Your task to perform on an android device: Add razer blackwidow to the cart on bestbuy.com, then select checkout. Image 0: 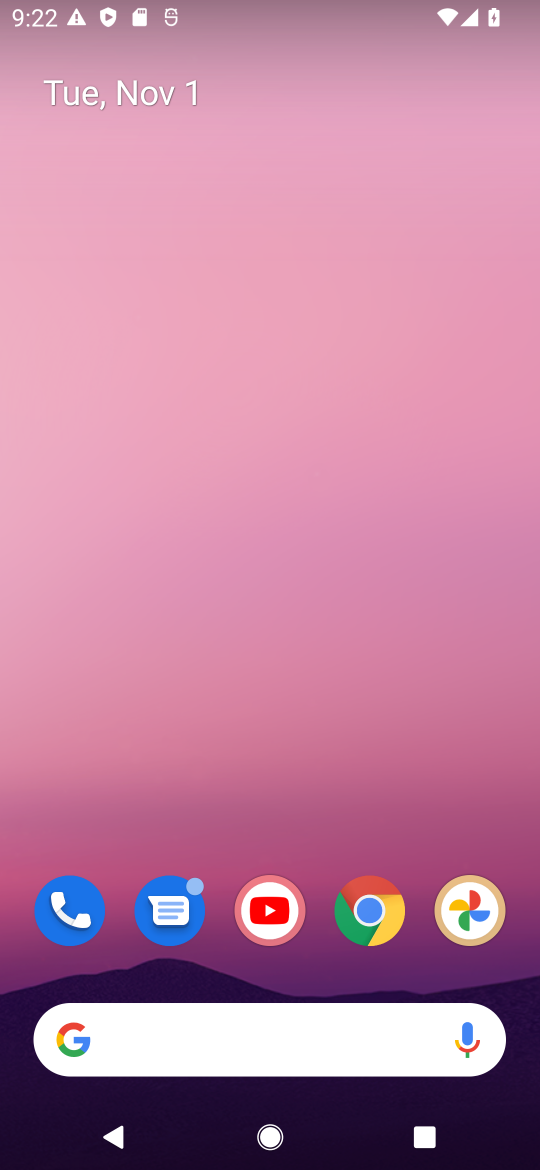
Step 0: click (366, 912)
Your task to perform on an android device: Add razer blackwidow to the cart on bestbuy.com, then select checkout. Image 1: 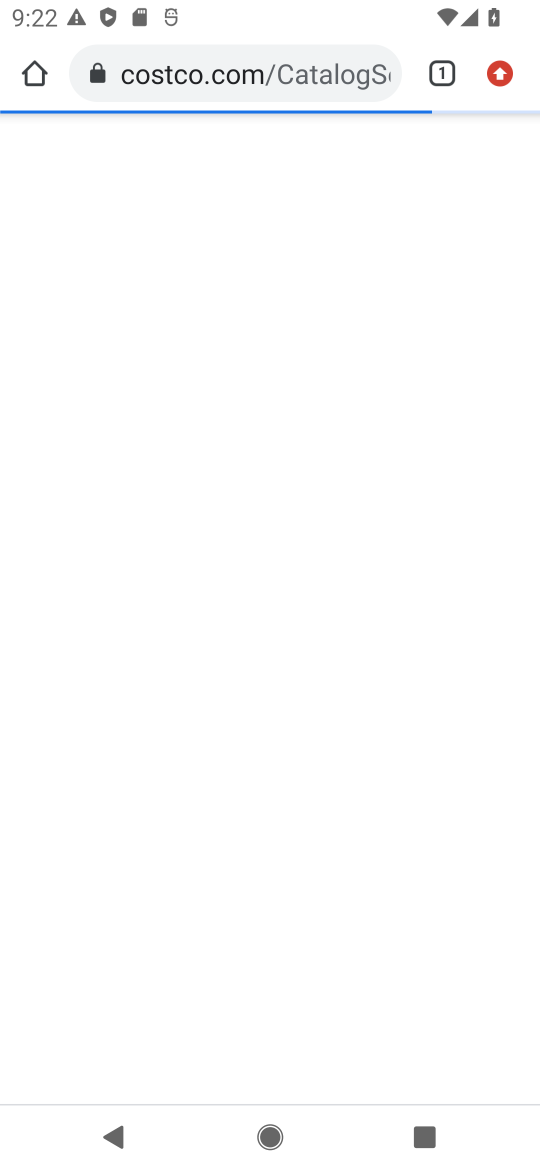
Step 1: click (229, 85)
Your task to perform on an android device: Add razer blackwidow to the cart on bestbuy.com, then select checkout. Image 2: 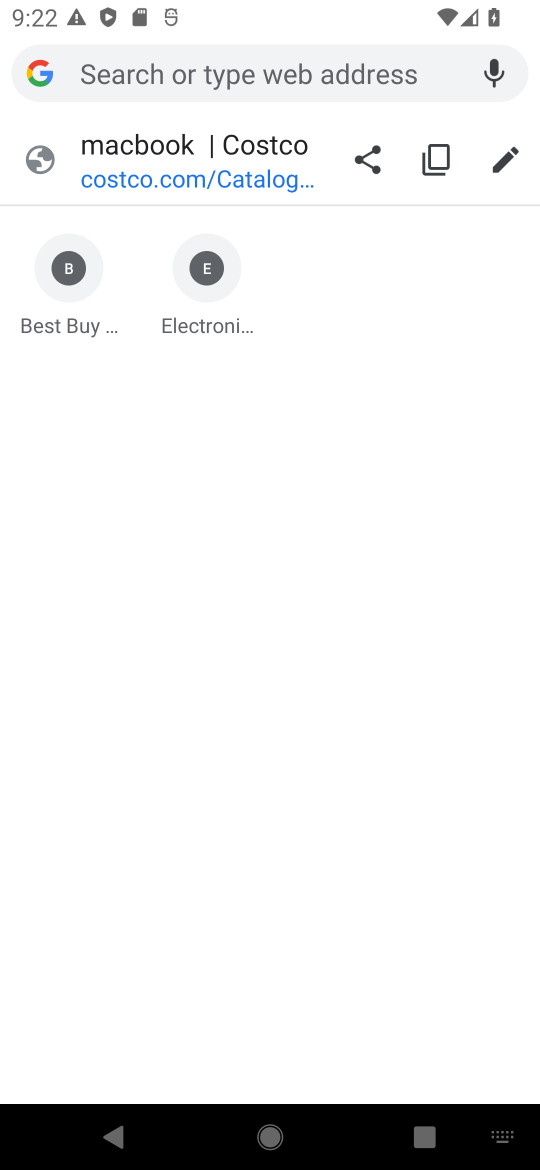
Step 2: type "bestbuy.com"
Your task to perform on an android device: Add razer blackwidow to the cart on bestbuy.com, then select checkout. Image 3: 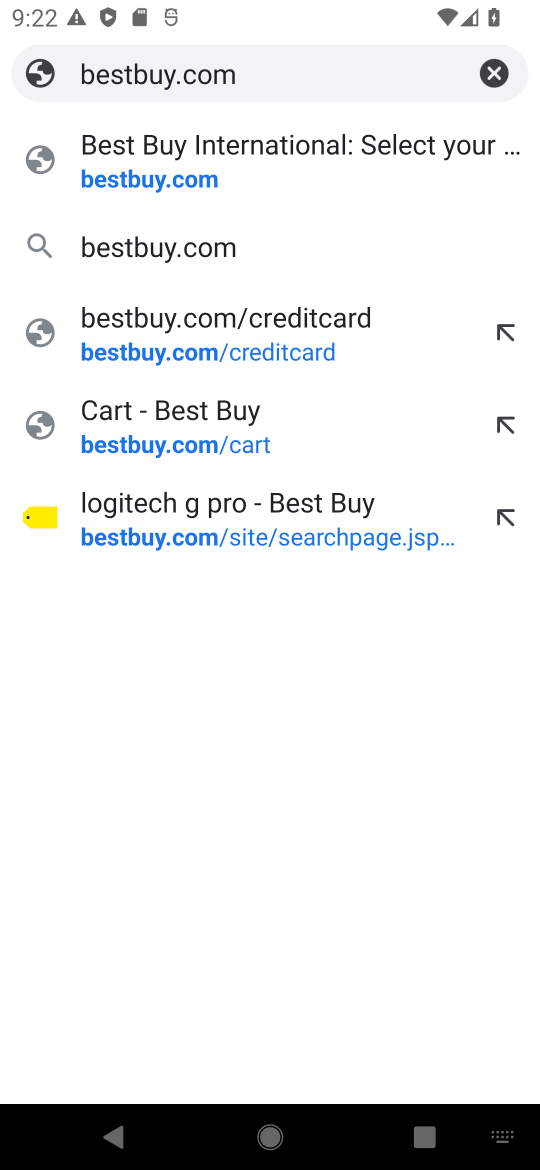
Step 3: click (133, 252)
Your task to perform on an android device: Add razer blackwidow to the cart on bestbuy.com, then select checkout. Image 4: 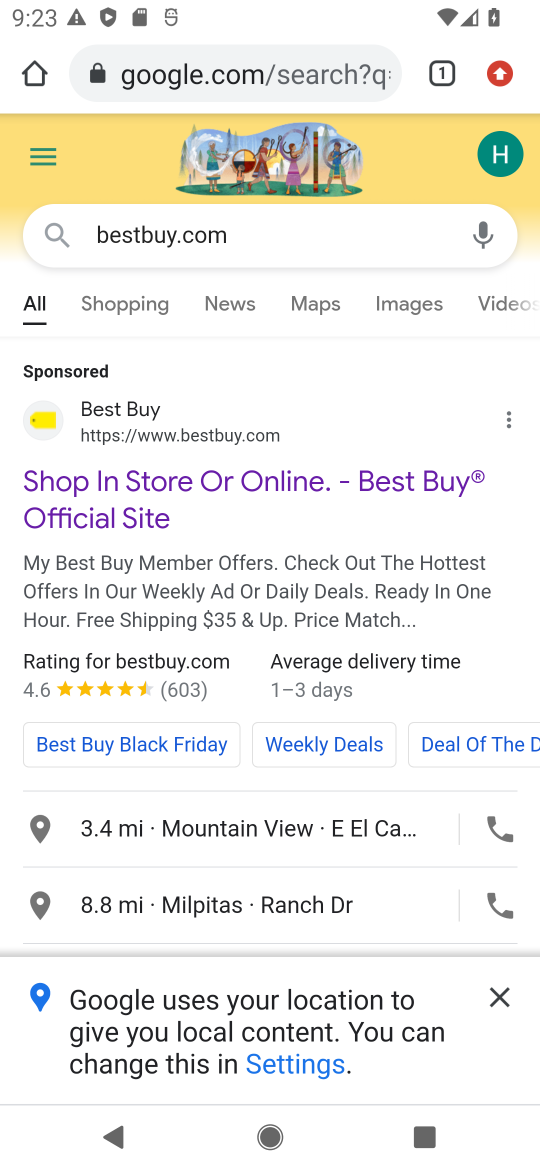
Step 4: click (110, 493)
Your task to perform on an android device: Add razer blackwidow to the cart on bestbuy.com, then select checkout. Image 5: 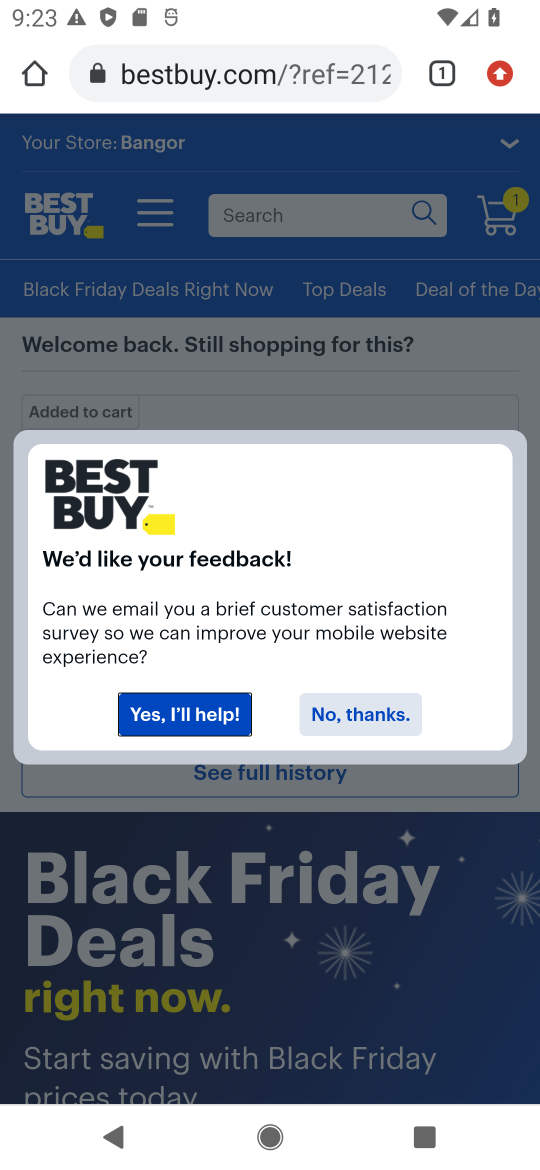
Step 5: click (362, 719)
Your task to perform on an android device: Add razer blackwidow to the cart on bestbuy.com, then select checkout. Image 6: 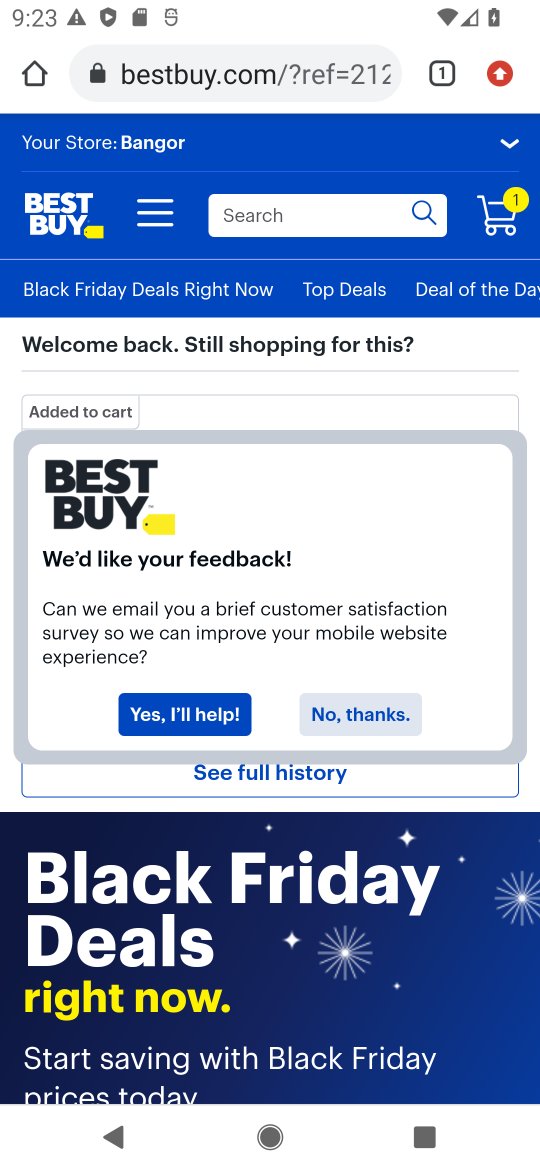
Step 6: click (286, 211)
Your task to perform on an android device: Add razer blackwidow to the cart on bestbuy.com, then select checkout. Image 7: 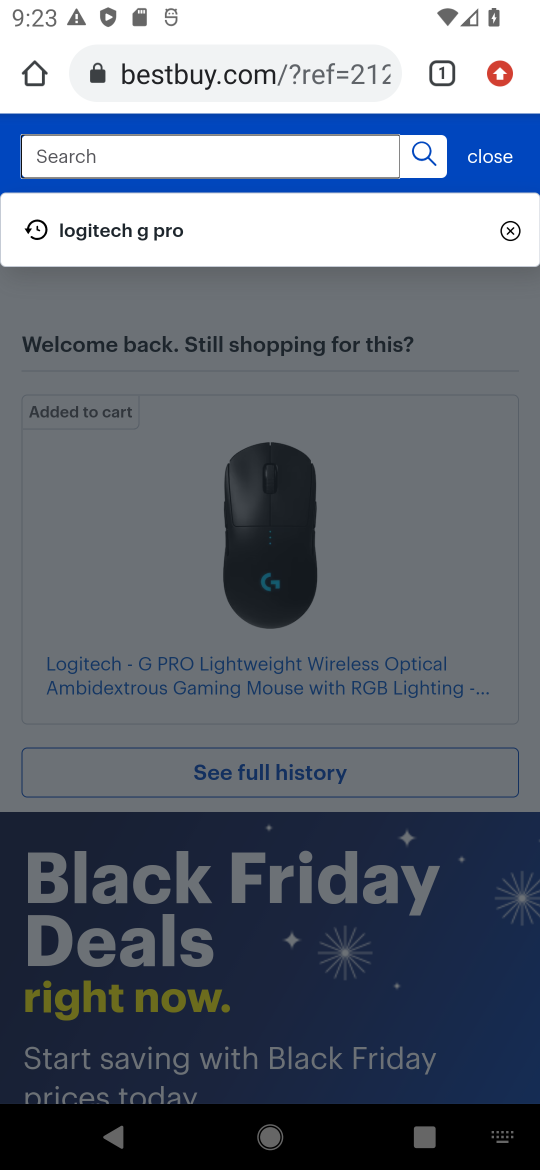
Step 7: click (284, 216)
Your task to perform on an android device: Add razer blackwidow to the cart on bestbuy.com, then select checkout. Image 8: 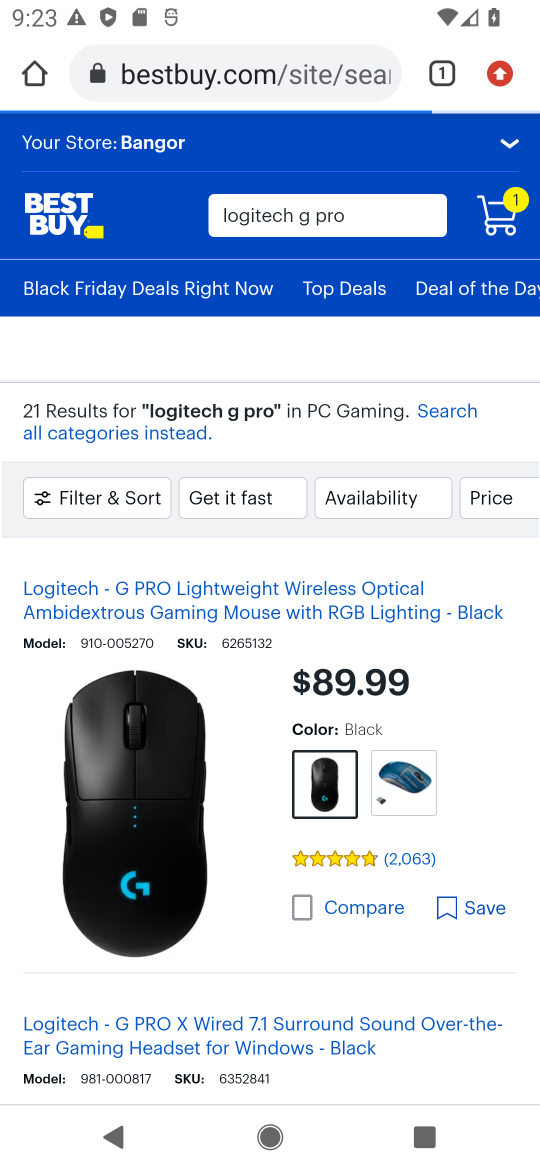
Step 8: click (305, 206)
Your task to perform on an android device: Add razer blackwidow to the cart on bestbuy.com, then select checkout. Image 9: 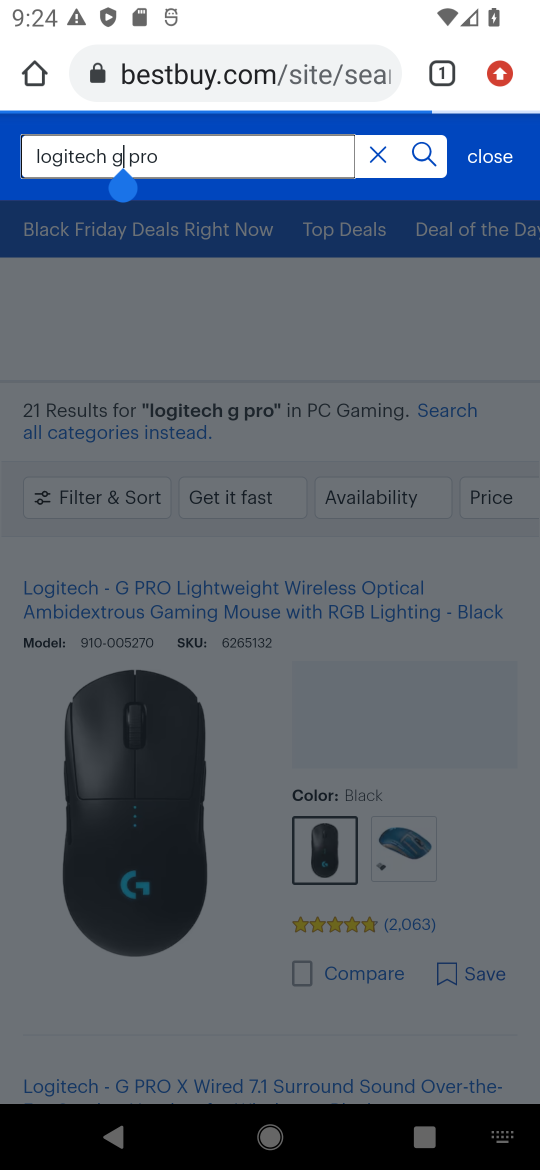
Step 9: click (366, 162)
Your task to perform on an android device: Add razer blackwidow to the cart on bestbuy.com, then select checkout. Image 10: 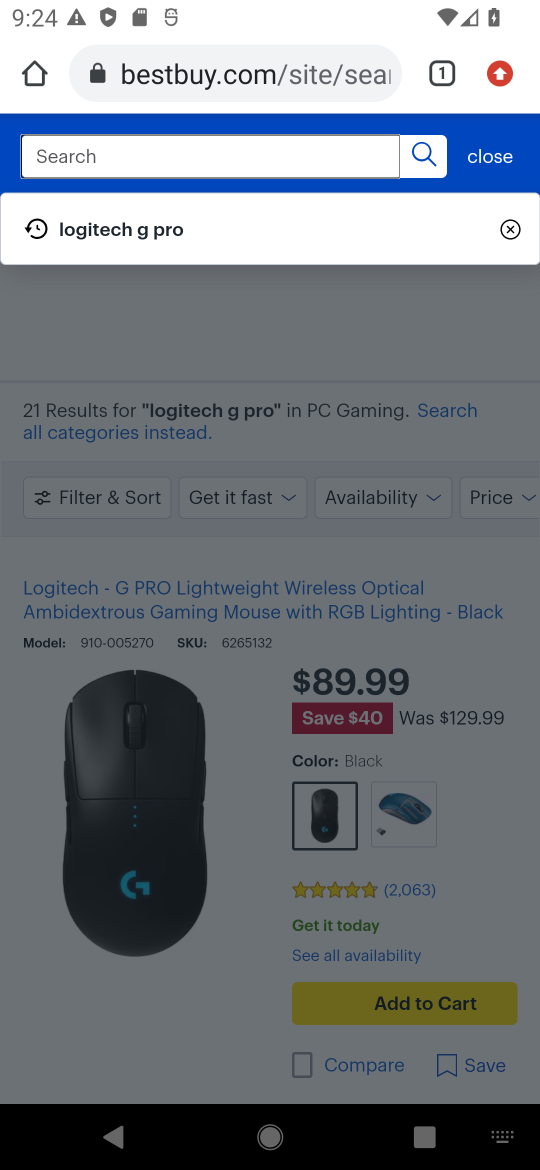
Step 10: type "razer blackwidow"
Your task to perform on an android device: Add razer blackwidow to the cart on bestbuy.com, then select checkout. Image 11: 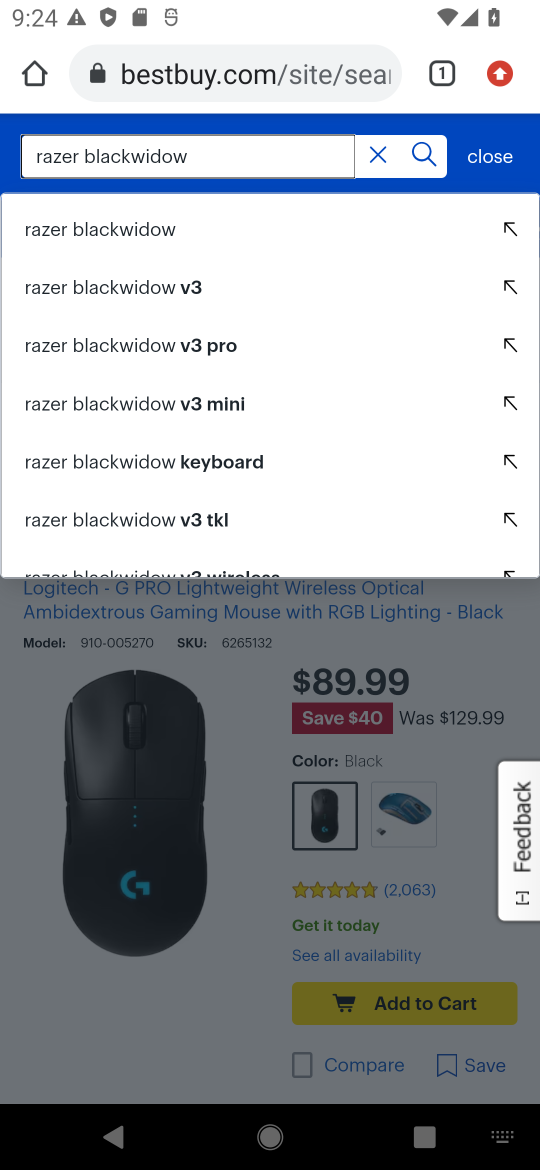
Step 11: click (98, 244)
Your task to perform on an android device: Add razer blackwidow to the cart on bestbuy.com, then select checkout. Image 12: 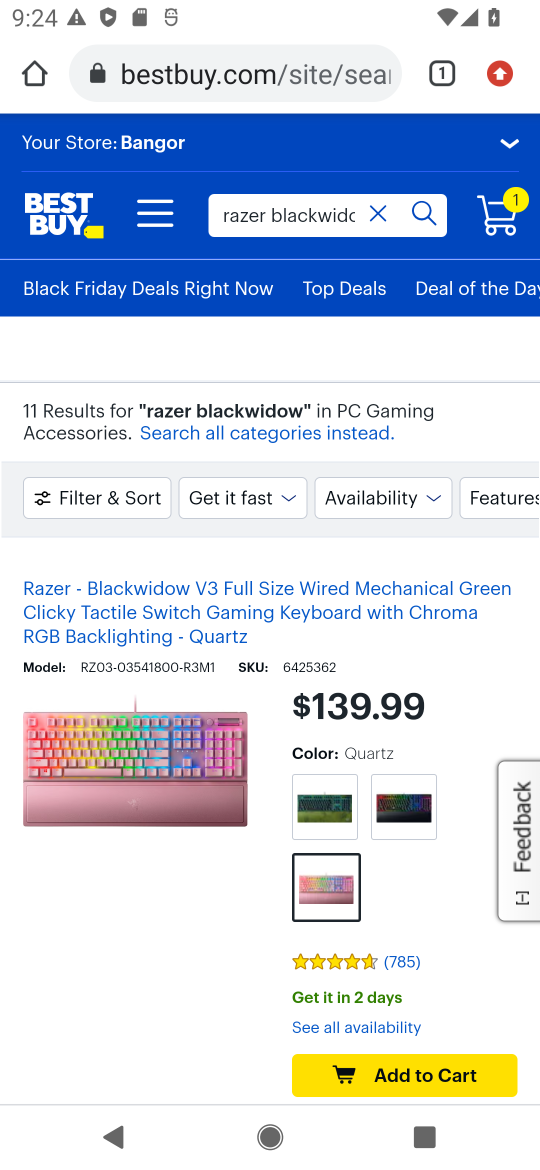
Step 12: click (415, 1075)
Your task to perform on an android device: Add razer blackwidow to the cart on bestbuy.com, then select checkout. Image 13: 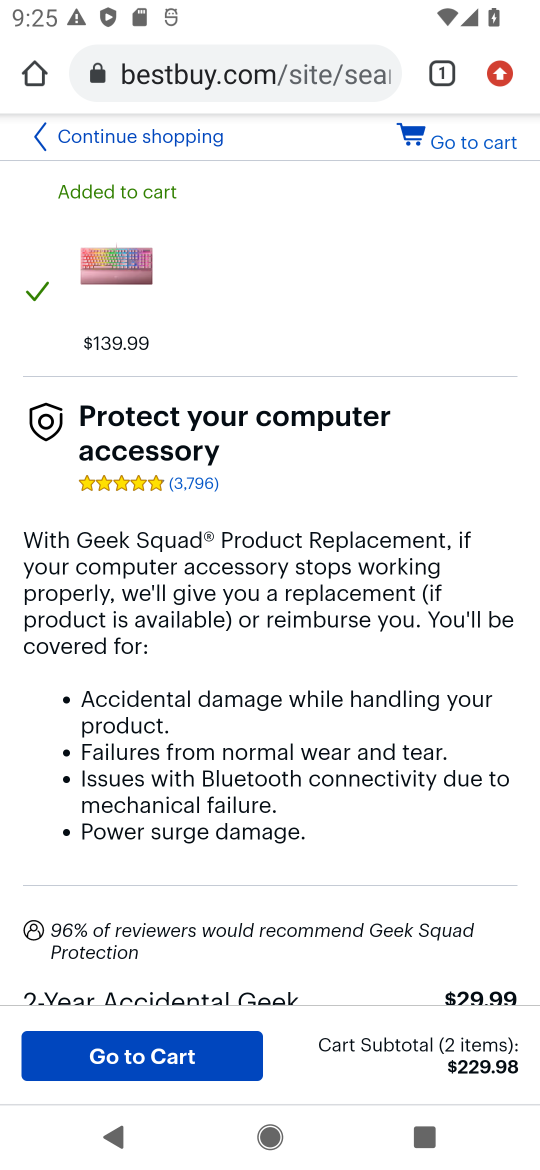
Step 13: click (462, 148)
Your task to perform on an android device: Add razer blackwidow to the cart on bestbuy.com, then select checkout. Image 14: 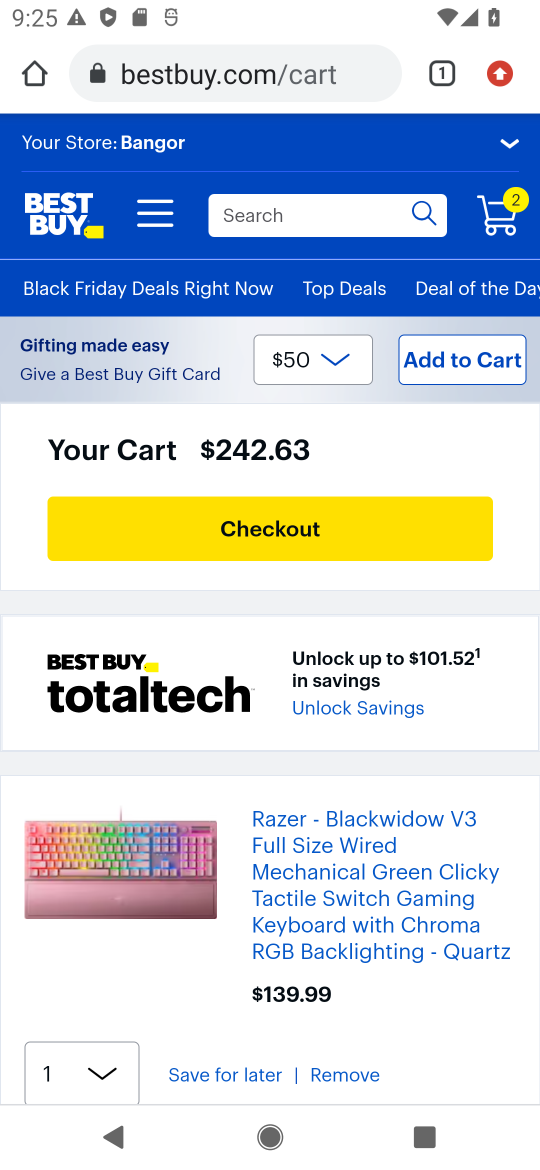
Step 14: click (300, 534)
Your task to perform on an android device: Add razer blackwidow to the cart on bestbuy.com, then select checkout. Image 15: 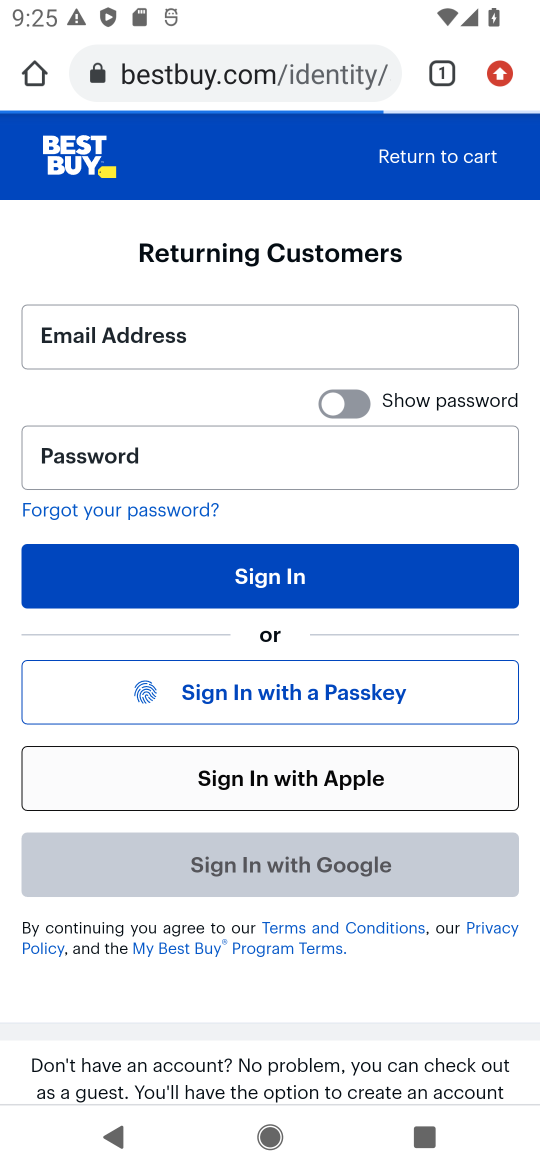
Step 15: task complete